Your task to perform on an android device: Go to wifi settings Image 0: 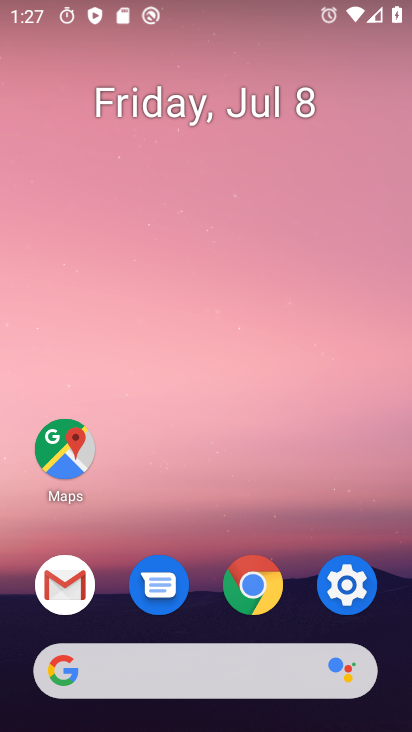
Step 0: click (336, 595)
Your task to perform on an android device: Go to wifi settings Image 1: 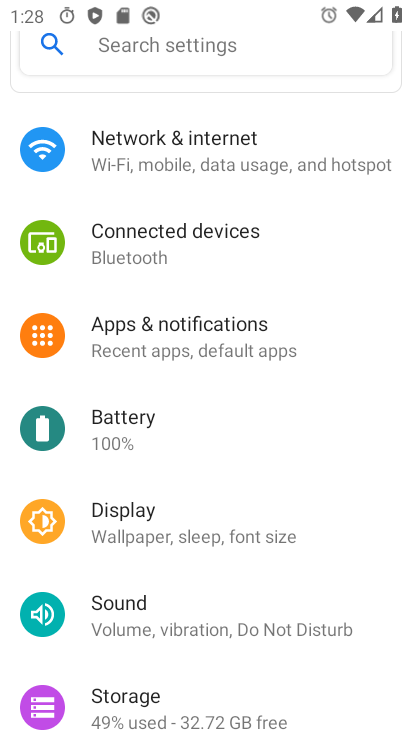
Step 1: click (165, 173)
Your task to perform on an android device: Go to wifi settings Image 2: 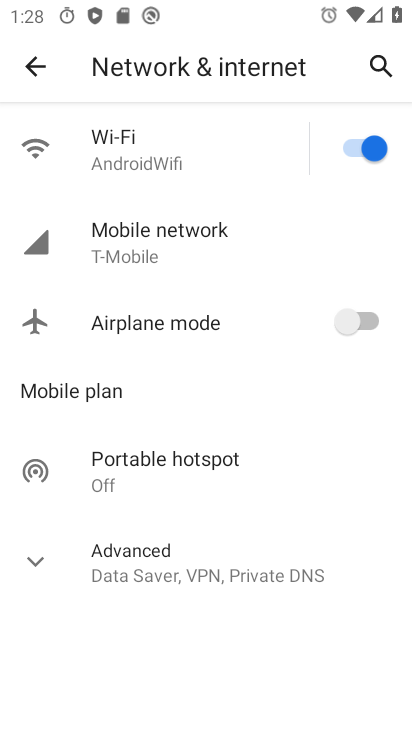
Step 2: click (150, 158)
Your task to perform on an android device: Go to wifi settings Image 3: 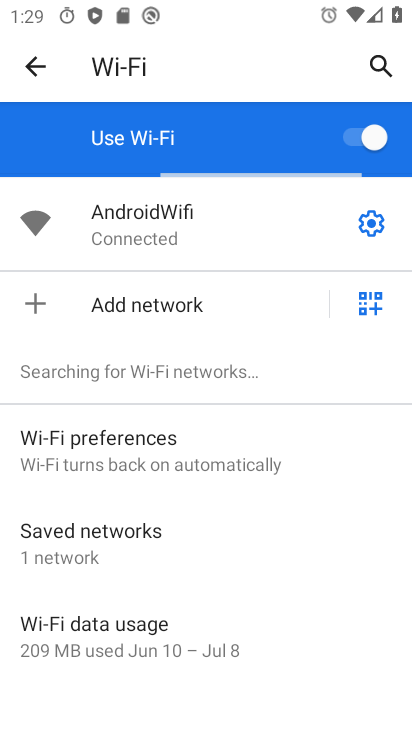
Step 3: task complete